Your task to perform on an android device: search for starred emails in the gmail app Image 0: 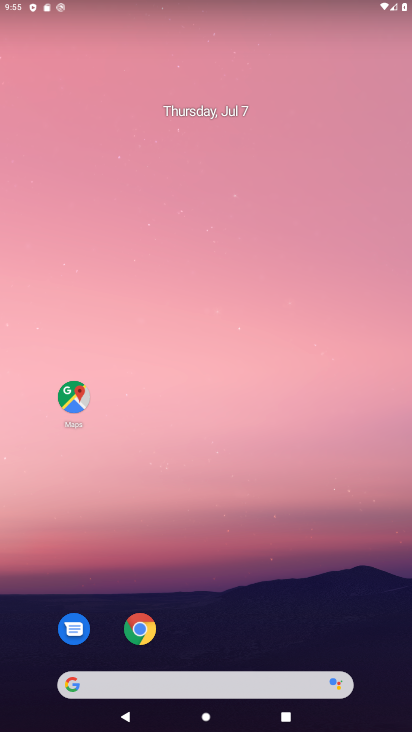
Step 0: drag from (387, 664) to (326, 157)
Your task to perform on an android device: search for starred emails in the gmail app Image 1: 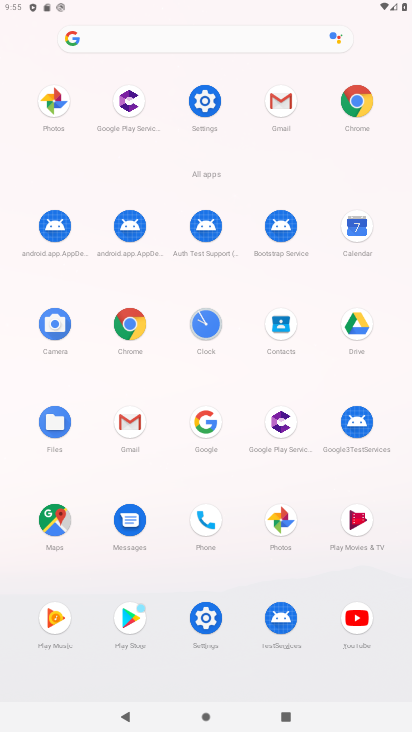
Step 1: click (129, 421)
Your task to perform on an android device: search for starred emails in the gmail app Image 2: 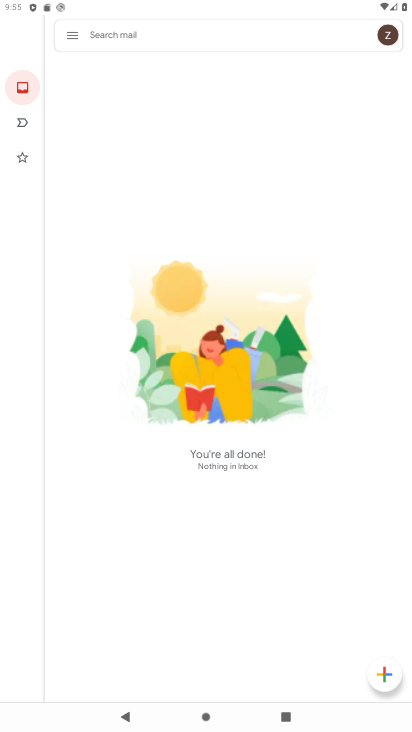
Step 2: click (68, 29)
Your task to perform on an android device: search for starred emails in the gmail app Image 3: 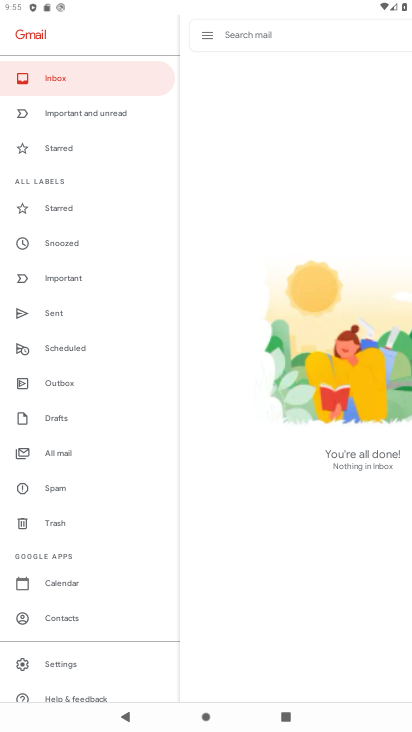
Step 3: click (52, 213)
Your task to perform on an android device: search for starred emails in the gmail app Image 4: 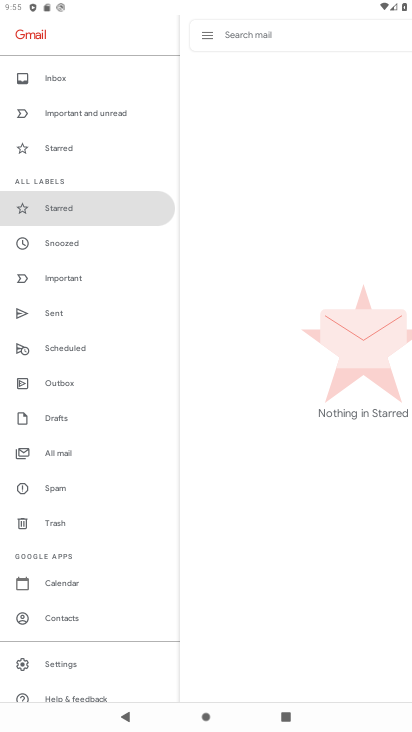
Step 4: task complete